Your task to perform on an android device: Do I have any events this weekend? Image 0: 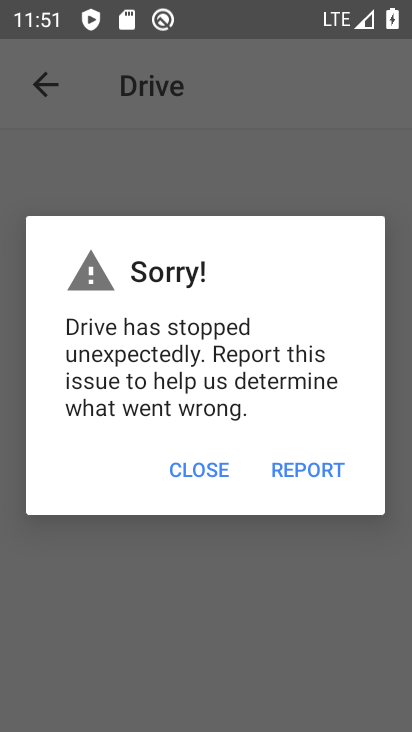
Step 0: press home button
Your task to perform on an android device: Do I have any events this weekend? Image 1: 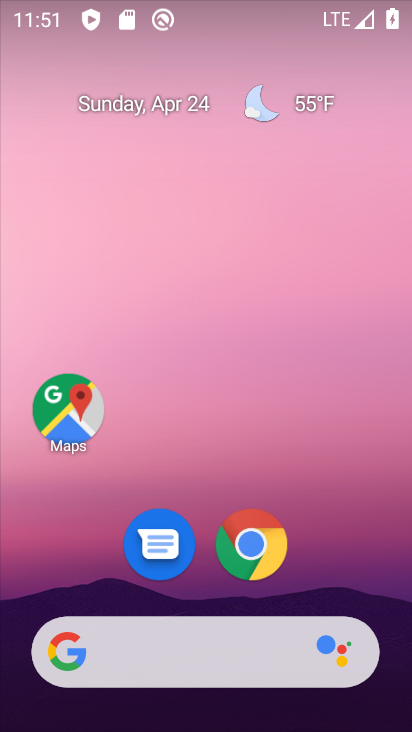
Step 1: drag from (287, 467) to (141, 94)
Your task to perform on an android device: Do I have any events this weekend? Image 2: 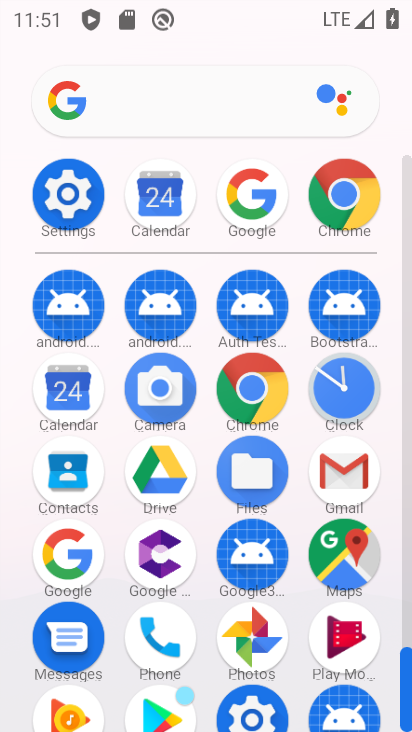
Step 2: click (159, 195)
Your task to perform on an android device: Do I have any events this weekend? Image 3: 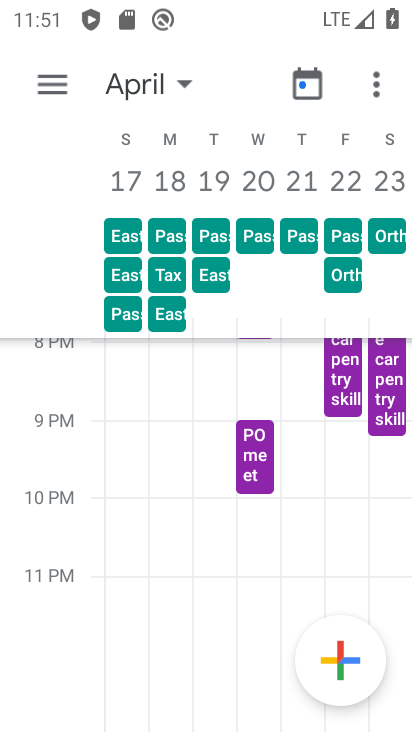
Step 3: click (136, 79)
Your task to perform on an android device: Do I have any events this weekend? Image 4: 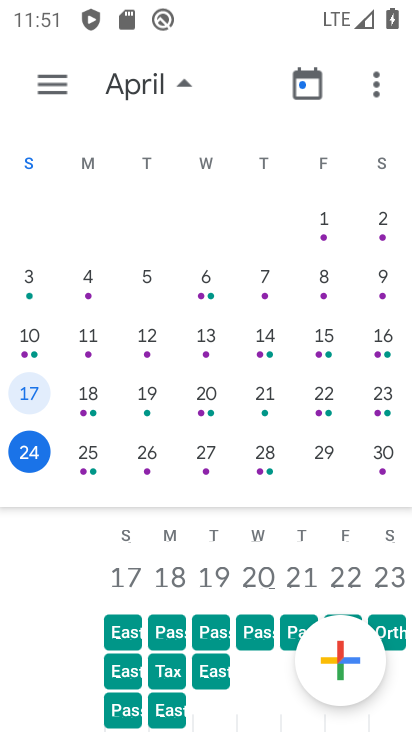
Step 4: click (388, 459)
Your task to perform on an android device: Do I have any events this weekend? Image 5: 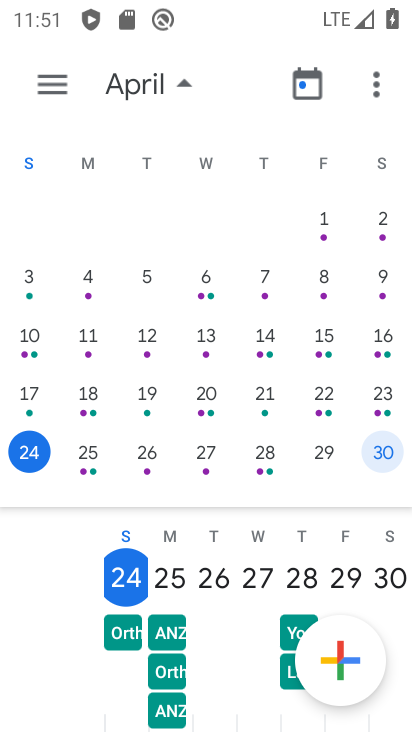
Step 5: click (381, 454)
Your task to perform on an android device: Do I have any events this weekend? Image 6: 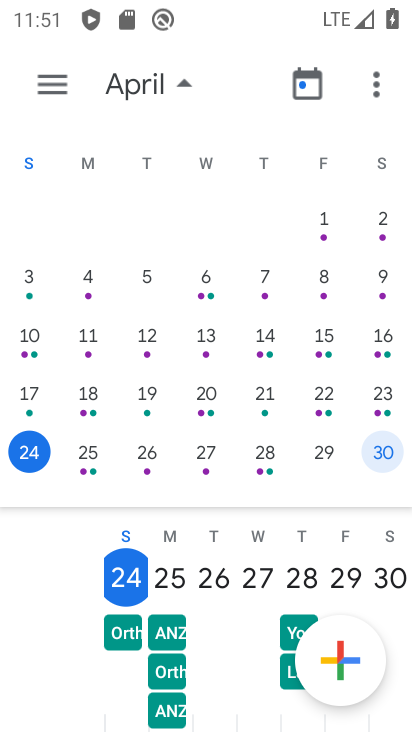
Step 6: click (58, 91)
Your task to perform on an android device: Do I have any events this weekend? Image 7: 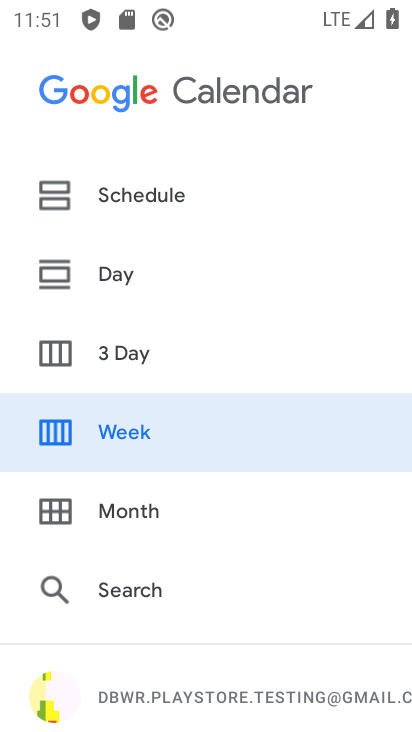
Step 7: drag from (197, 663) to (149, 160)
Your task to perform on an android device: Do I have any events this weekend? Image 8: 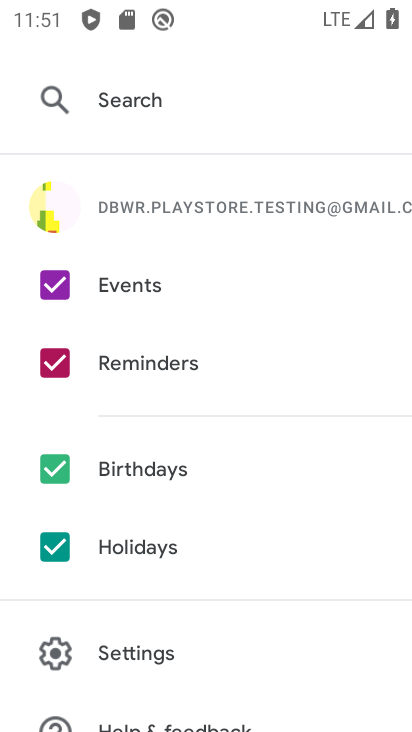
Step 8: click (60, 549)
Your task to perform on an android device: Do I have any events this weekend? Image 9: 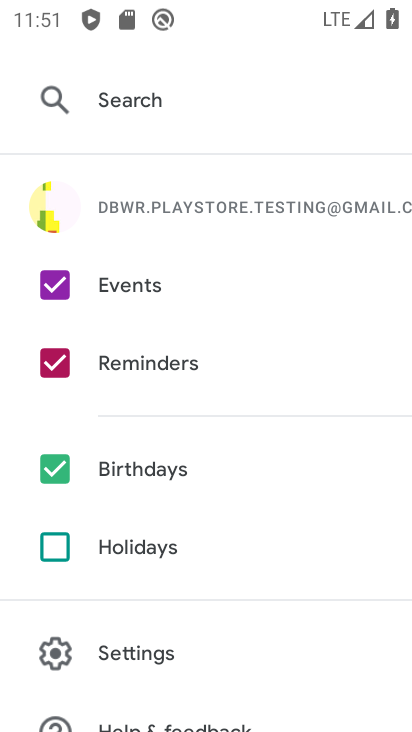
Step 9: click (59, 464)
Your task to perform on an android device: Do I have any events this weekend? Image 10: 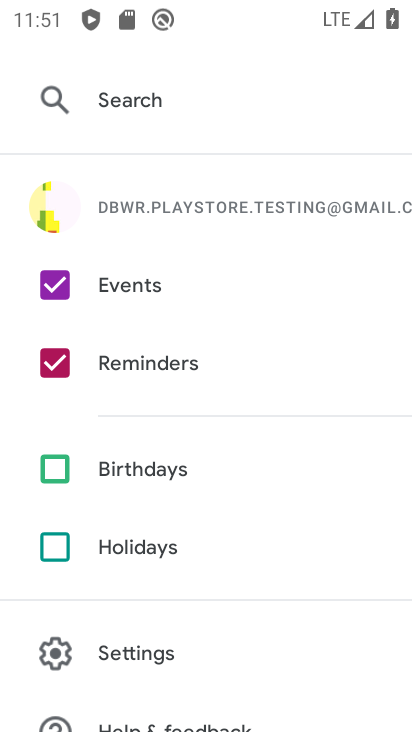
Step 10: click (56, 368)
Your task to perform on an android device: Do I have any events this weekend? Image 11: 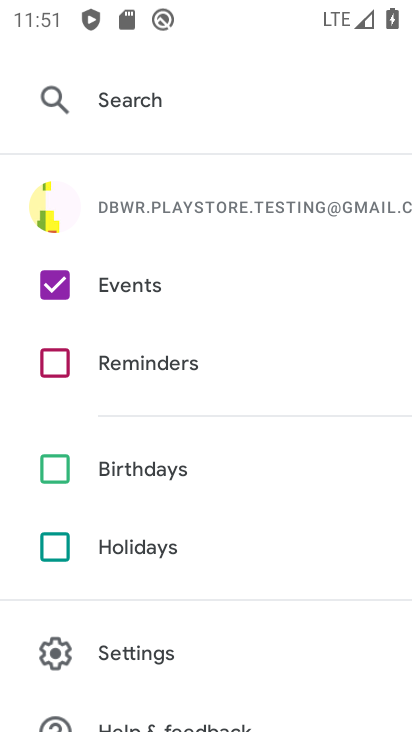
Step 11: press back button
Your task to perform on an android device: Do I have any events this weekend? Image 12: 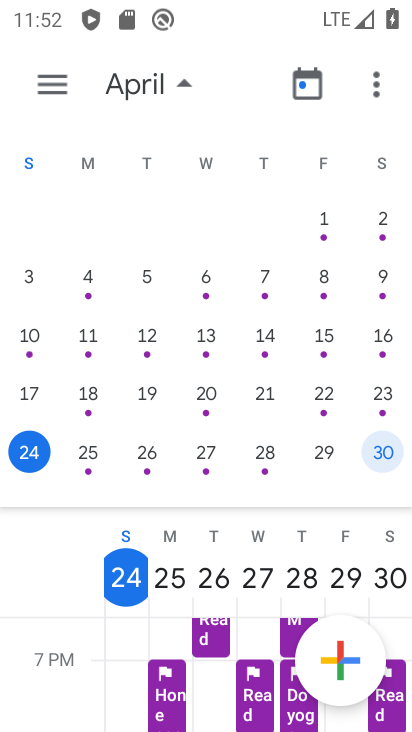
Step 12: click (50, 82)
Your task to perform on an android device: Do I have any events this weekend? Image 13: 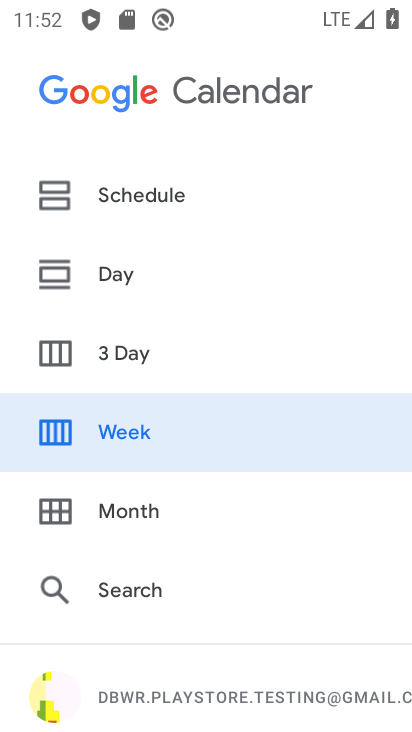
Step 13: click (80, 200)
Your task to perform on an android device: Do I have any events this weekend? Image 14: 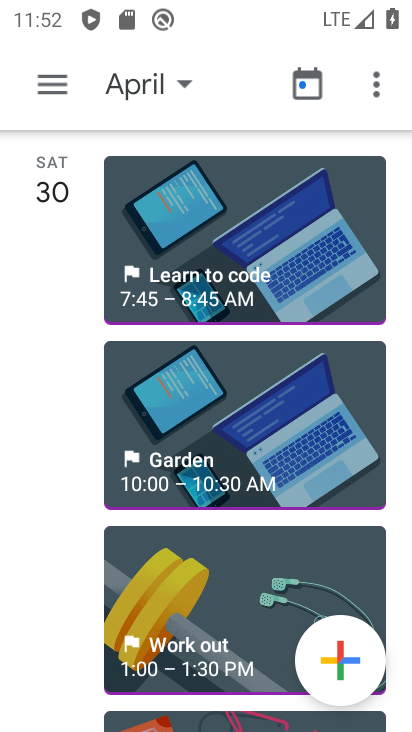
Step 14: task complete